Your task to perform on an android device: change the clock display to digital Image 0: 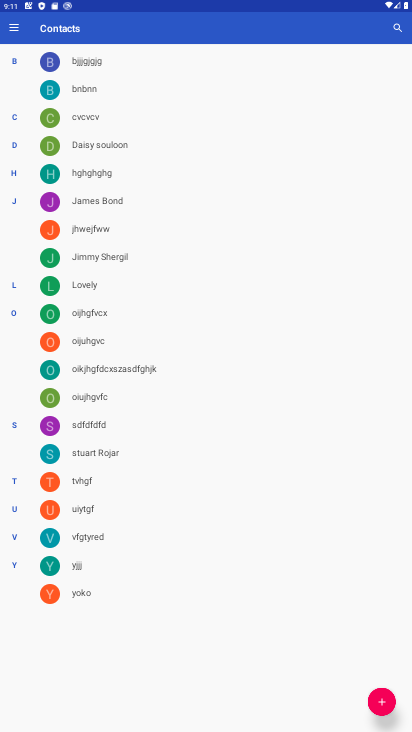
Step 0: drag from (202, 582) to (284, 118)
Your task to perform on an android device: change the clock display to digital Image 1: 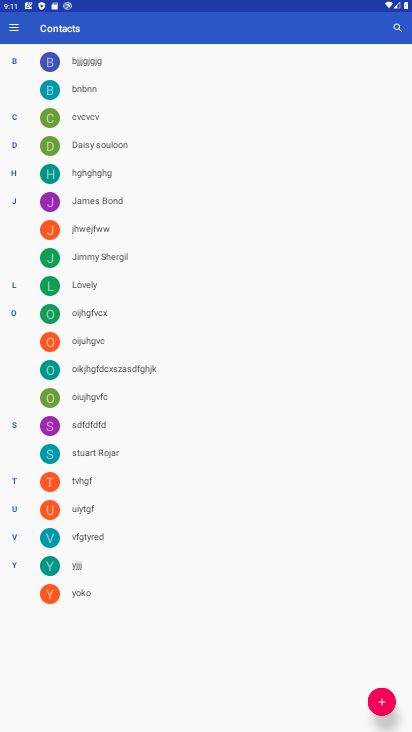
Step 1: drag from (201, 605) to (251, 245)
Your task to perform on an android device: change the clock display to digital Image 2: 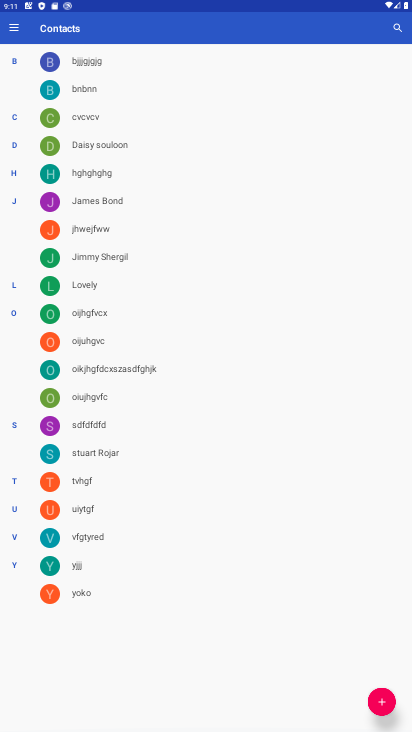
Step 2: drag from (256, 212) to (323, 685)
Your task to perform on an android device: change the clock display to digital Image 3: 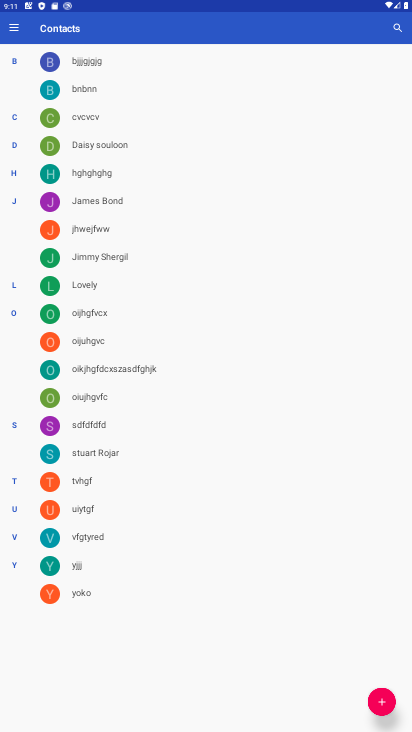
Step 3: press home button
Your task to perform on an android device: change the clock display to digital Image 4: 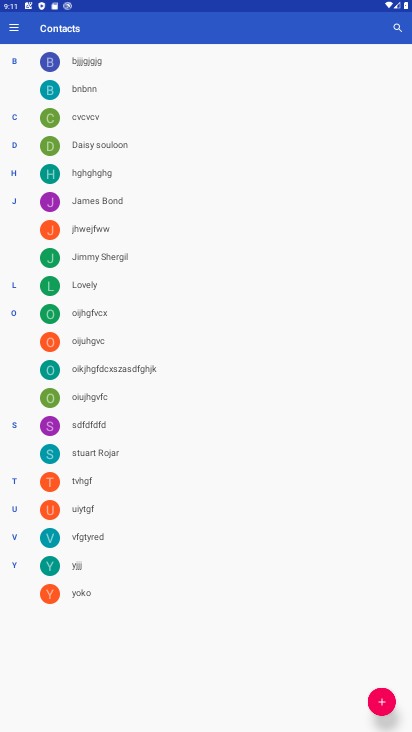
Step 4: press home button
Your task to perform on an android device: change the clock display to digital Image 5: 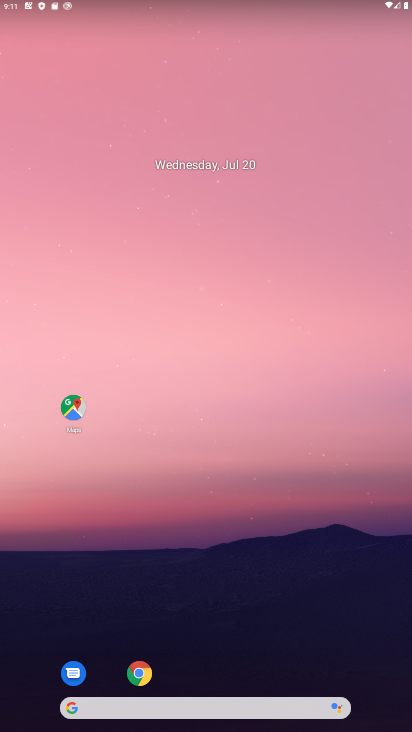
Step 5: drag from (164, 685) to (287, 21)
Your task to perform on an android device: change the clock display to digital Image 6: 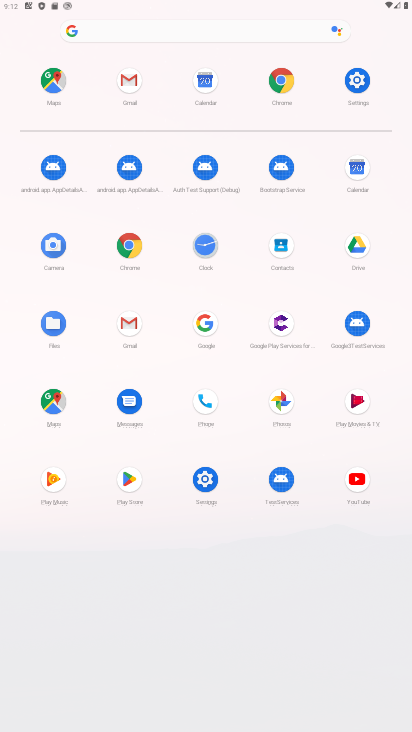
Step 6: click (205, 242)
Your task to perform on an android device: change the clock display to digital Image 7: 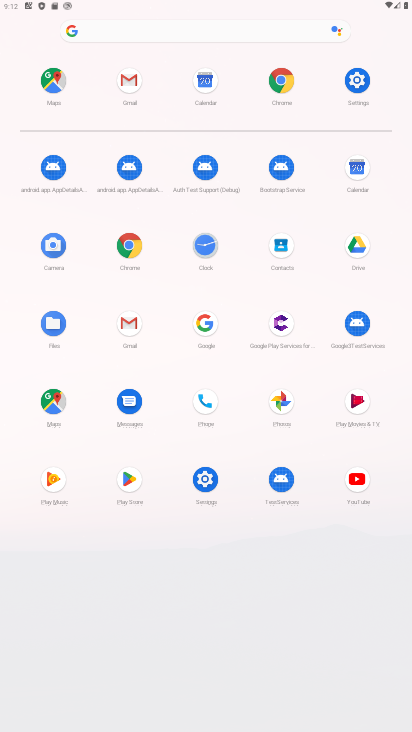
Step 7: click (205, 242)
Your task to perform on an android device: change the clock display to digital Image 8: 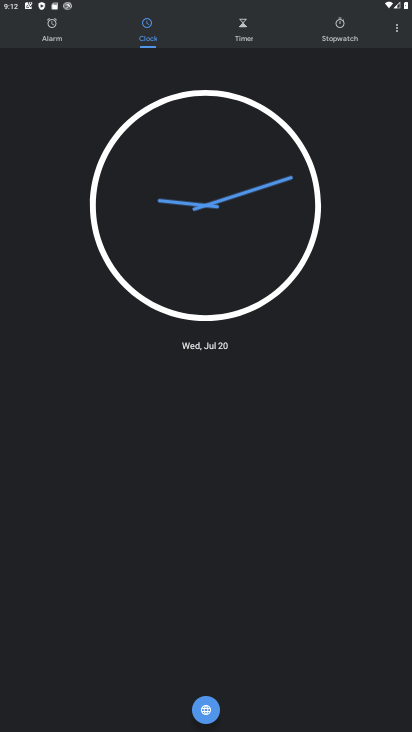
Step 8: drag from (287, 617) to (207, 105)
Your task to perform on an android device: change the clock display to digital Image 9: 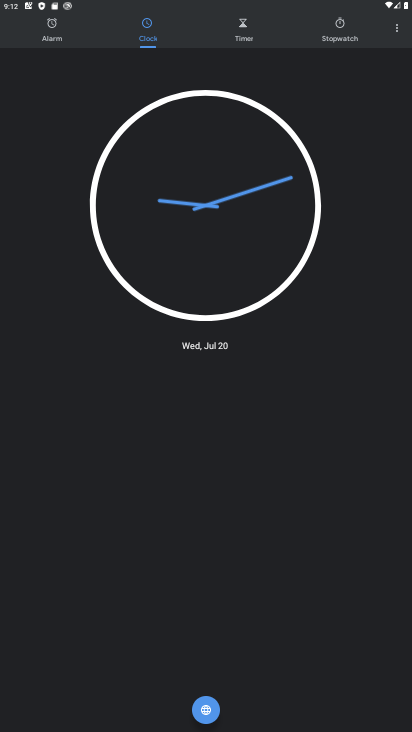
Step 9: drag from (400, 21) to (349, 50)
Your task to perform on an android device: change the clock display to digital Image 10: 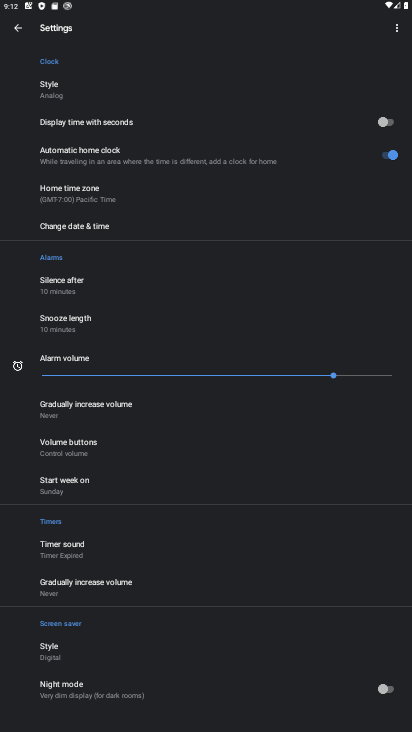
Step 10: click (54, 81)
Your task to perform on an android device: change the clock display to digital Image 11: 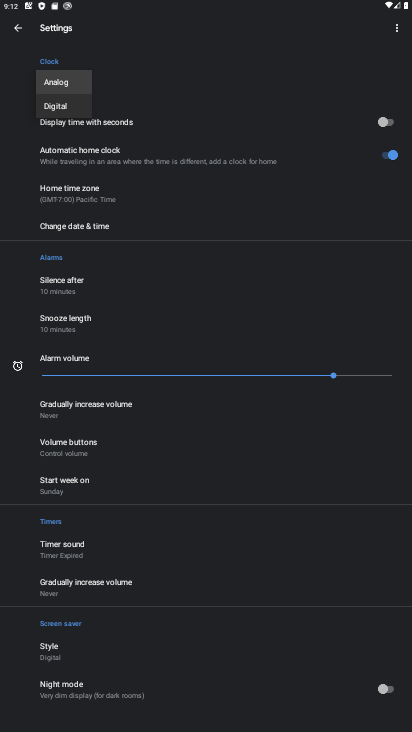
Step 11: click (56, 106)
Your task to perform on an android device: change the clock display to digital Image 12: 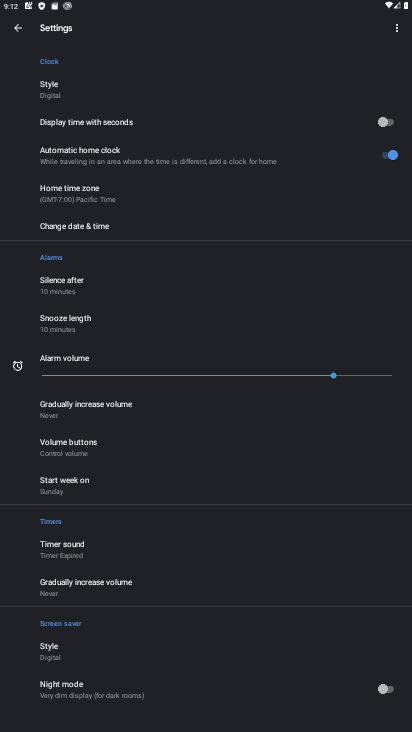
Step 12: task complete